Your task to perform on an android device: change notifications settings Image 0: 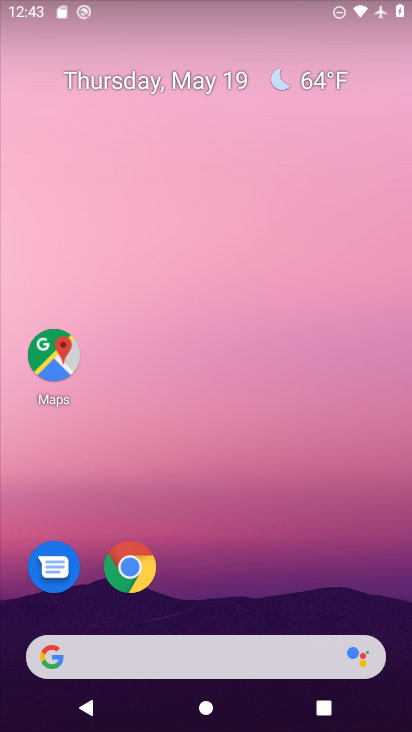
Step 0: drag from (253, 587) to (257, 81)
Your task to perform on an android device: change notifications settings Image 1: 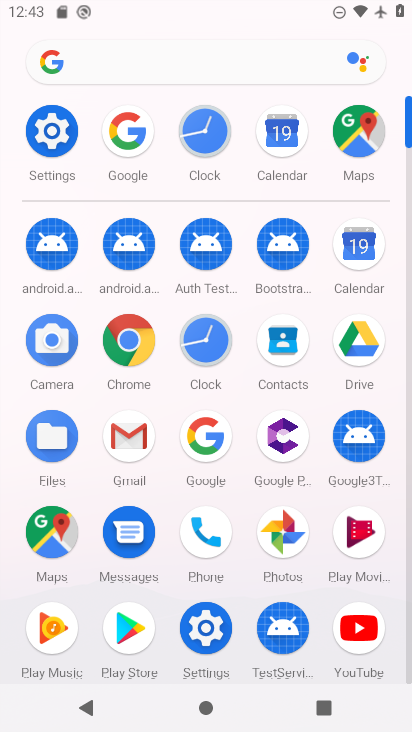
Step 1: click (49, 145)
Your task to perform on an android device: change notifications settings Image 2: 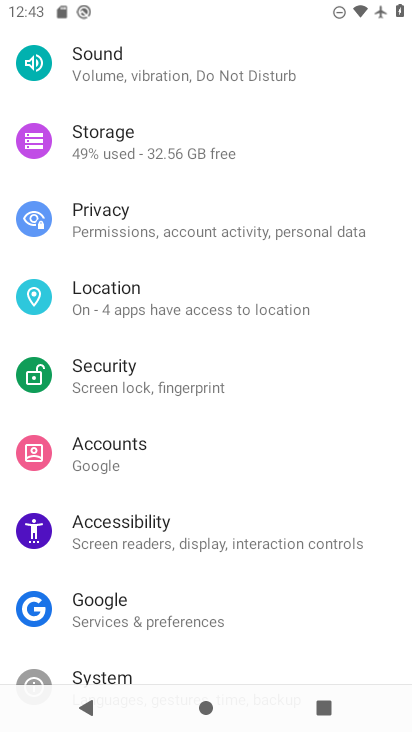
Step 2: drag from (212, 595) to (223, 662)
Your task to perform on an android device: change notifications settings Image 3: 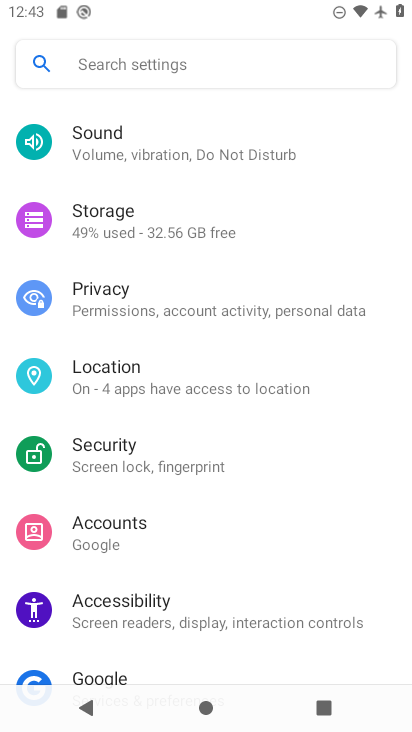
Step 3: drag from (191, 234) to (225, 628)
Your task to perform on an android device: change notifications settings Image 4: 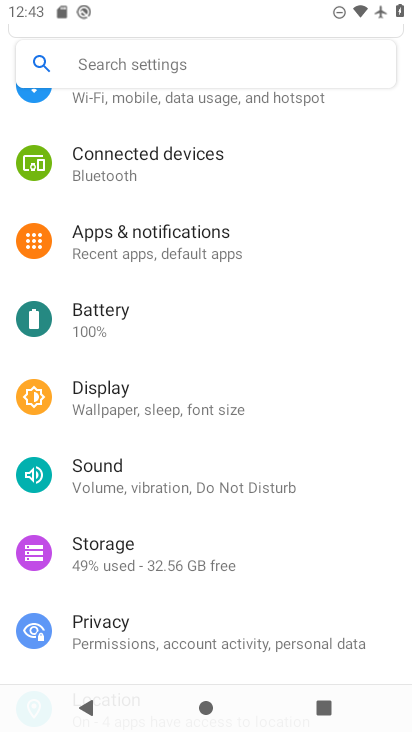
Step 4: click (177, 235)
Your task to perform on an android device: change notifications settings Image 5: 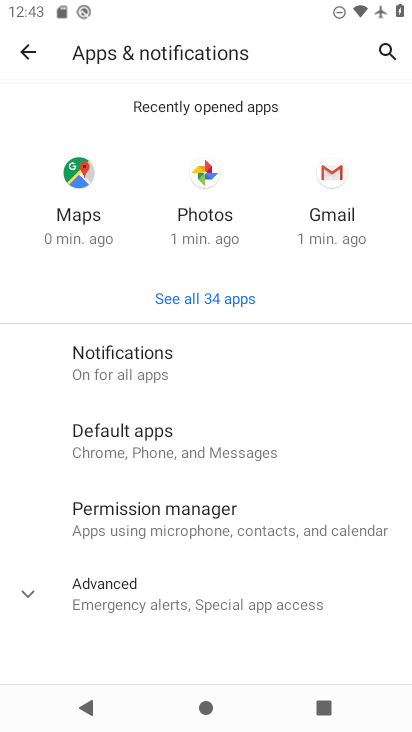
Step 5: click (173, 368)
Your task to perform on an android device: change notifications settings Image 6: 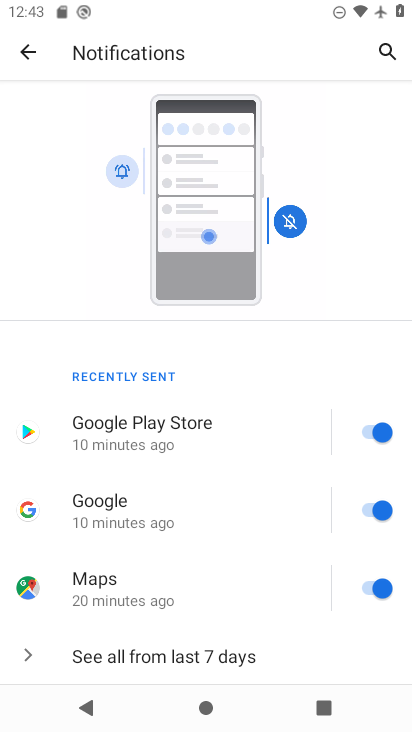
Step 6: task complete